Your task to perform on an android device: check storage Image 0: 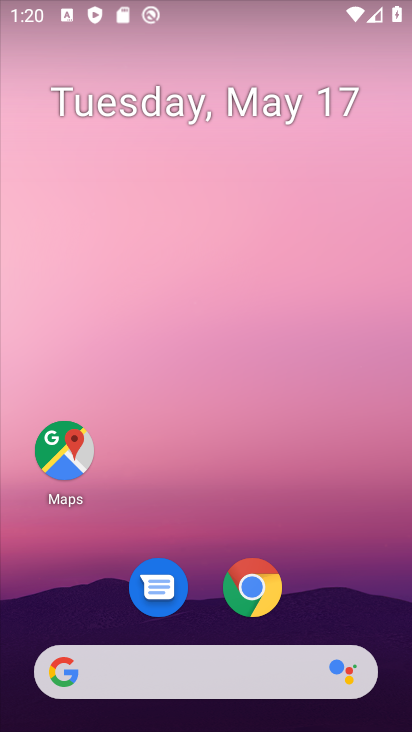
Step 0: click (243, 163)
Your task to perform on an android device: check storage Image 1: 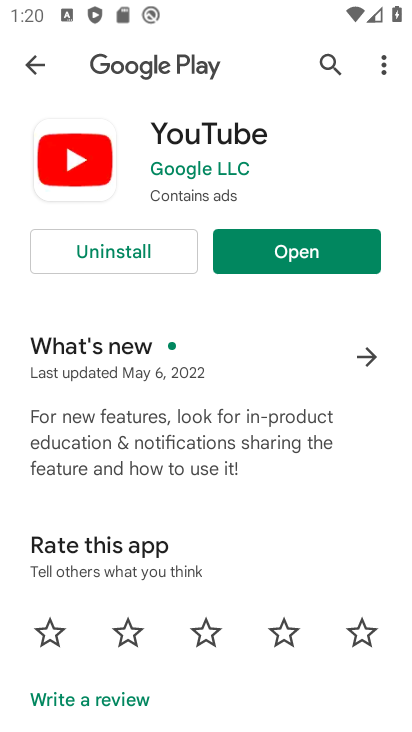
Step 1: press home button
Your task to perform on an android device: check storage Image 2: 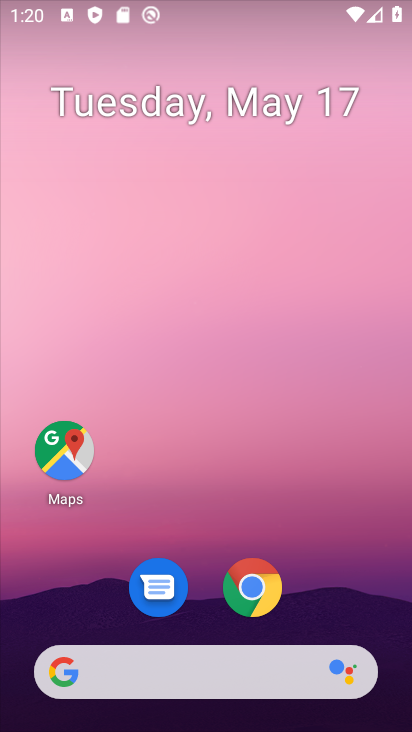
Step 2: drag from (185, 628) to (221, 135)
Your task to perform on an android device: check storage Image 3: 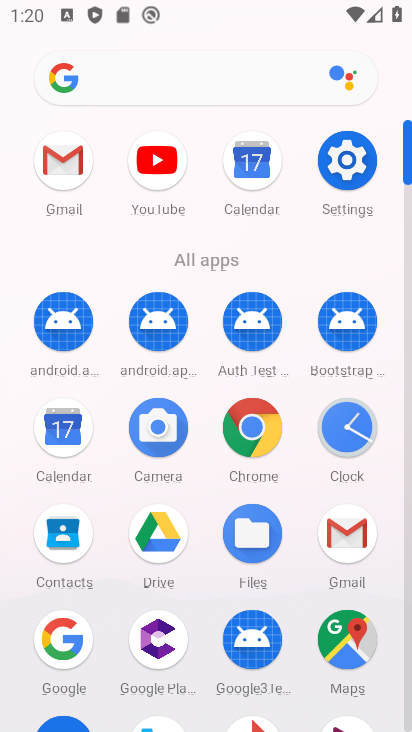
Step 3: click (373, 175)
Your task to perform on an android device: check storage Image 4: 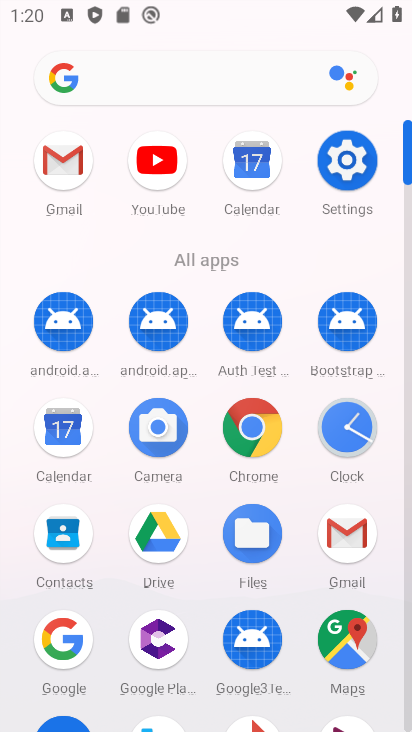
Step 4: click (372, 175)
Your task to perform on an android device: check storage Image 5: 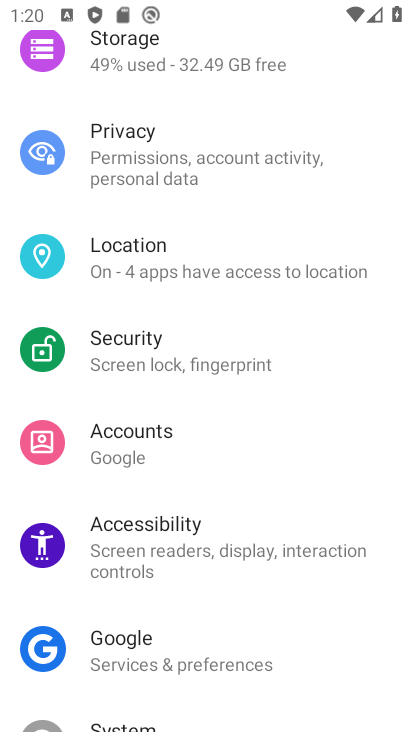
Step 5: drag from (196, 219) to (244, 485)
Your task to perform on an android device: check storage Image 6: 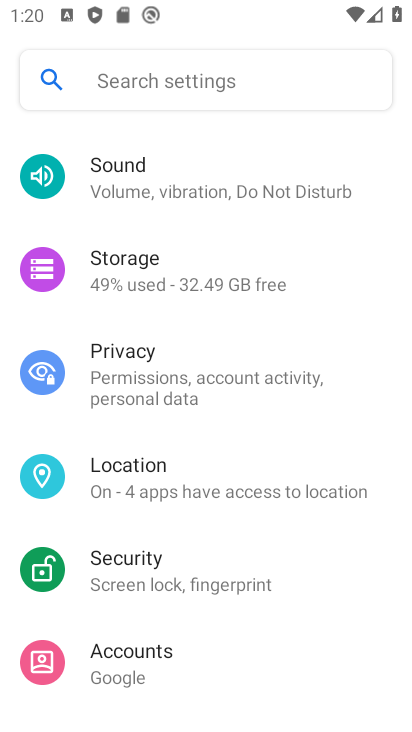
Step 6: click (174, 279)
Your task to perform on an android device: check storage Image 7: 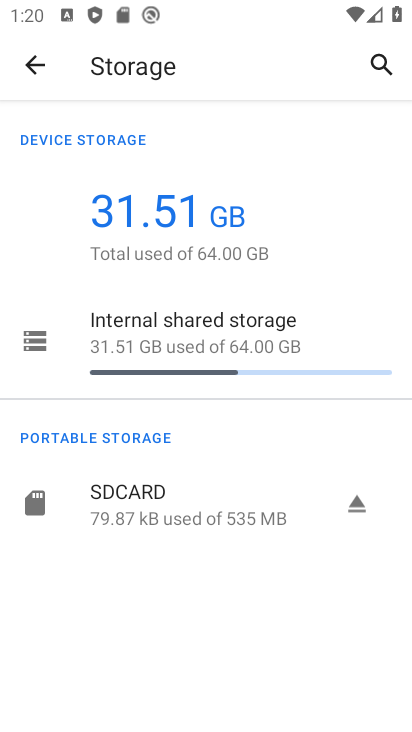
Step 7: task complete